Your task to perform on an android device: Go to Maps Image 0: 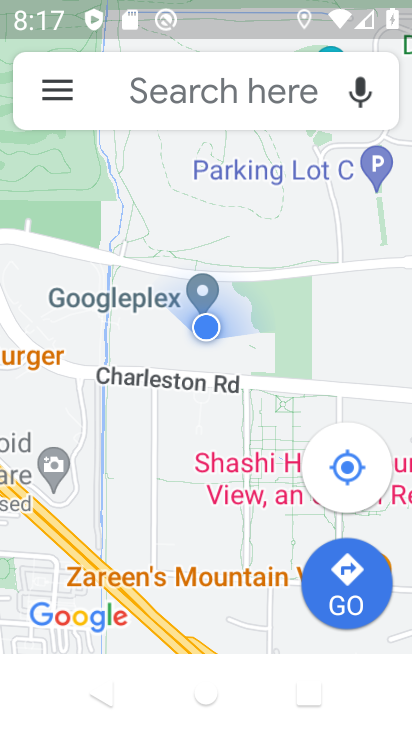
Step 0: task complete